Your task to perform on an android device: Open Google Chrome Image 0: 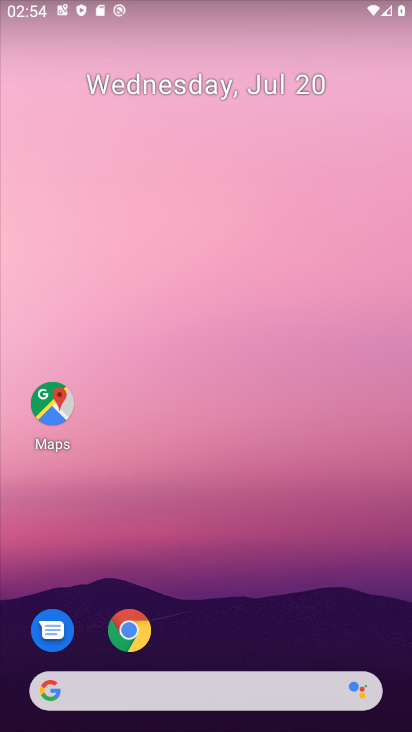
Step 0: drag from (313, 614) to (367, 176)
Your task to perform on an android device: Open Google Chrome Image 1: 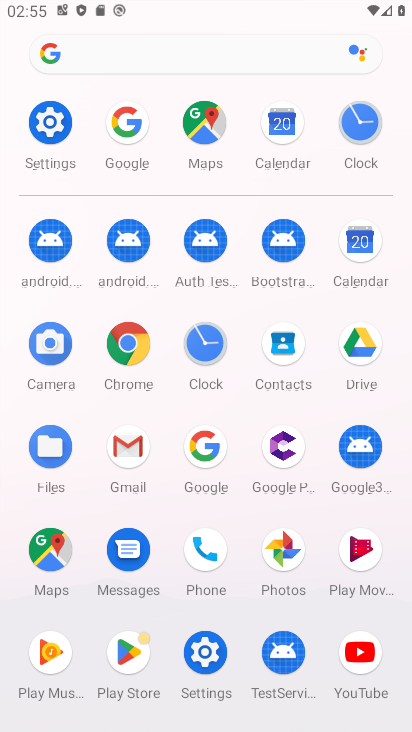
Step 1: click (136, 349)
Your task to perform on an android device: Open Google Chrome Image 2: 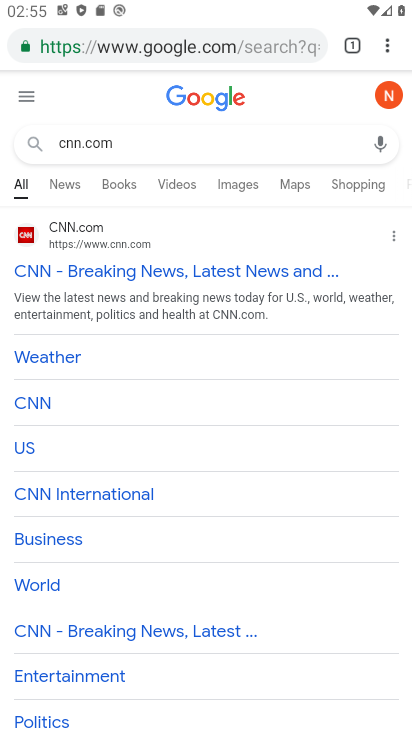
Step 2: task complete